Your task to perform on an android device: Open internet settings Image 0: 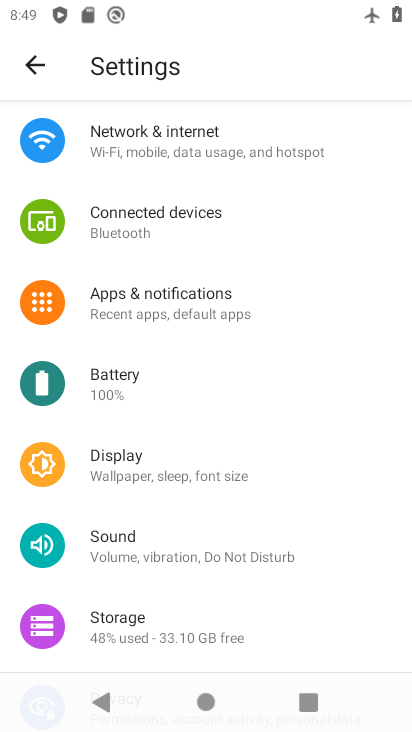
Step 0: click (176, 124)
Your task to perform on an android device: Open internet settings Image 1: 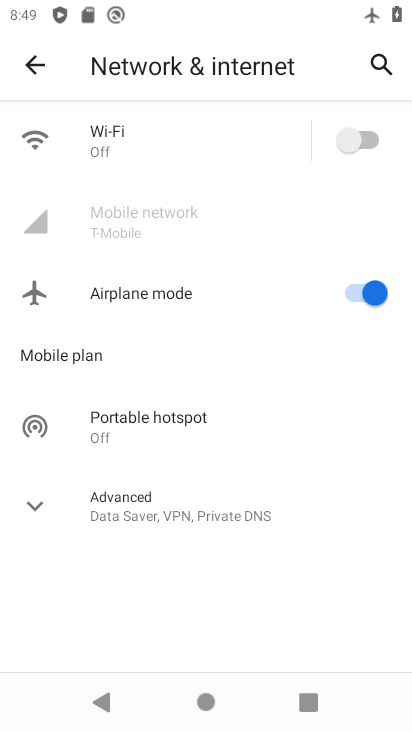
Step 1: task complete